Your task to perform on an android device: Turn on the flashlight Image 0: 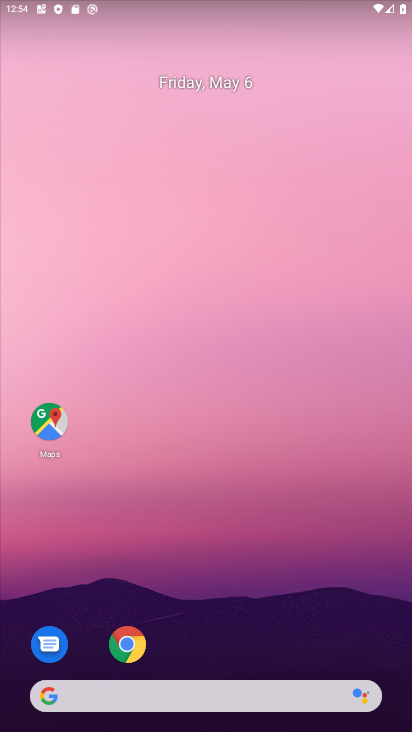
Step 0: drag from (343, 10) to (405, 457)
Your task to perform on an android device: Turn on the flashlight Image 1: 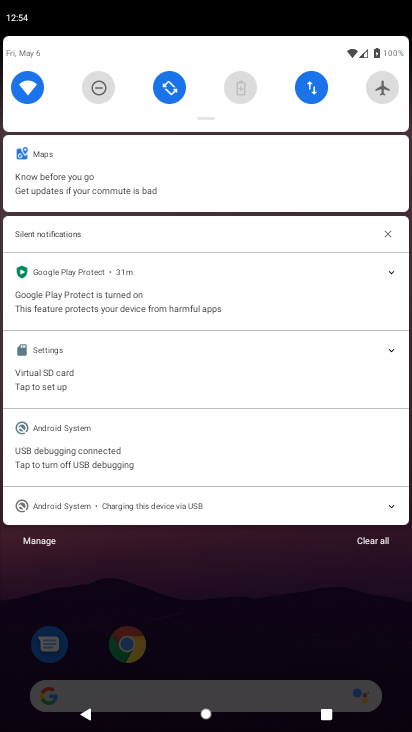
Step 1: task complete